Your task to perform on an android device: What's the weather going to be tomorrow? Image 0: 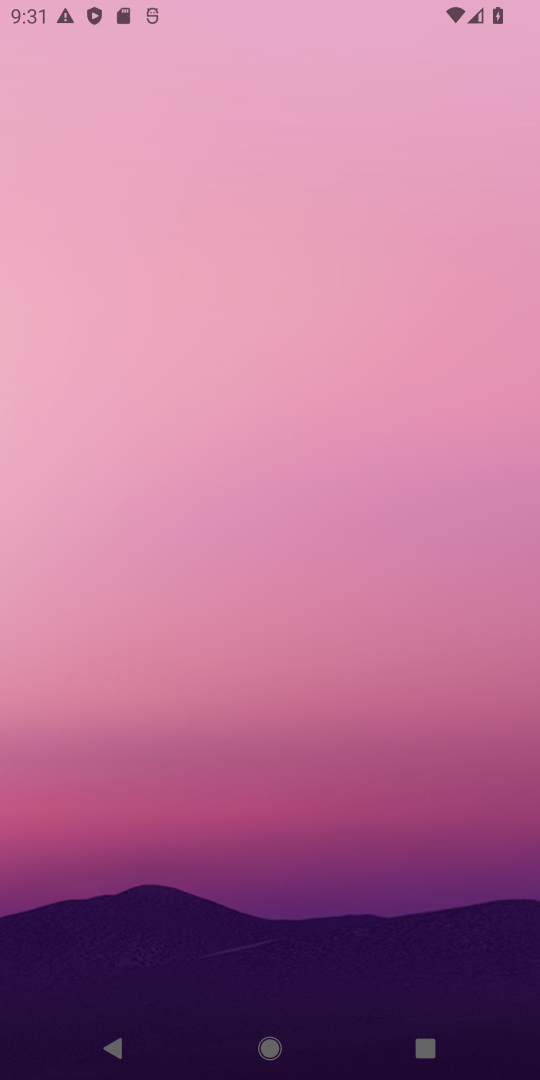
Step 0: press home button
Your task to perform on an android device: What's the weather going to be tomorrow? Image 1: 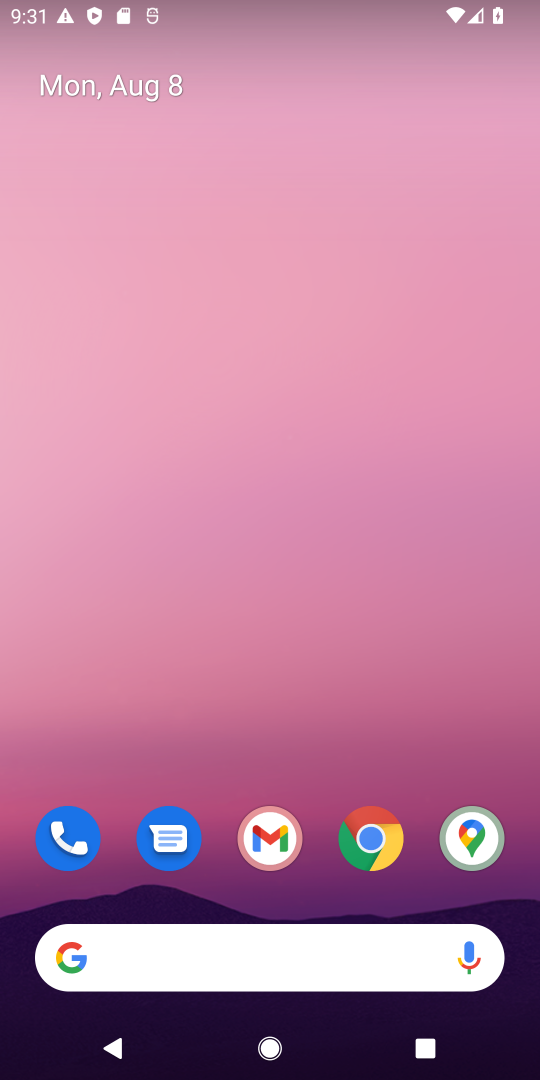
Step 1: click (66, 952)
Your task to perform on an android device: What's the weather going to be tomorrow? Image 2: 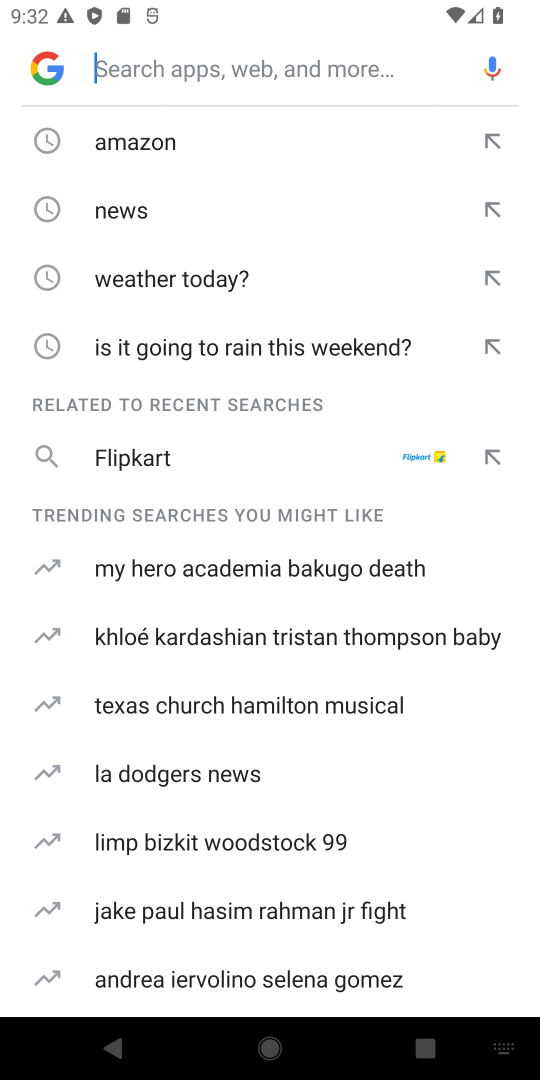
Step 2: press enter
Your task to perform on an android device: What's the weather going to be tomorrow? Image 3: 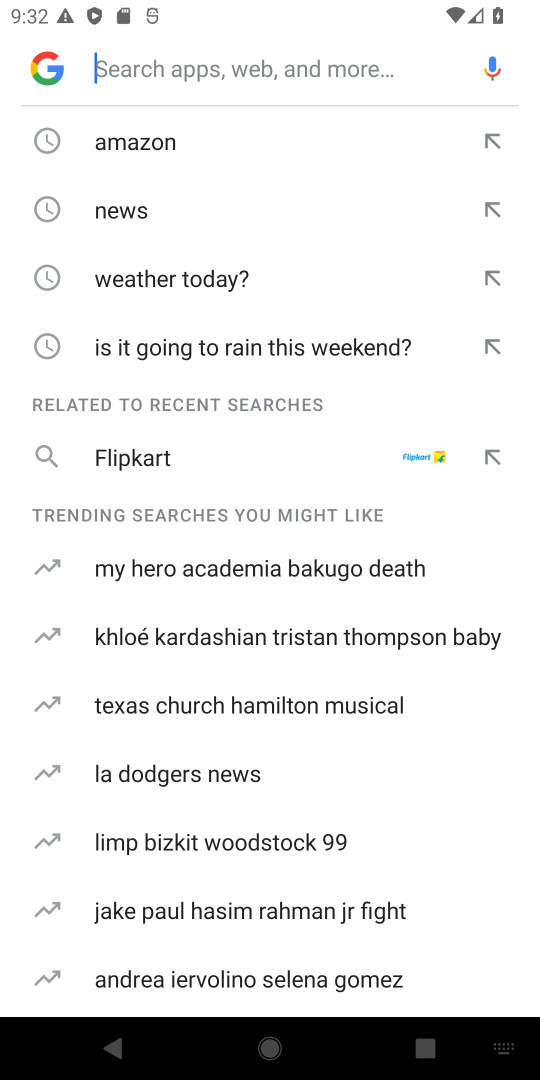
Step 3: type "weather going to be tomorrow?"
Your task to perform on an android device: What's the weather going to be tomorrow? Image 4: 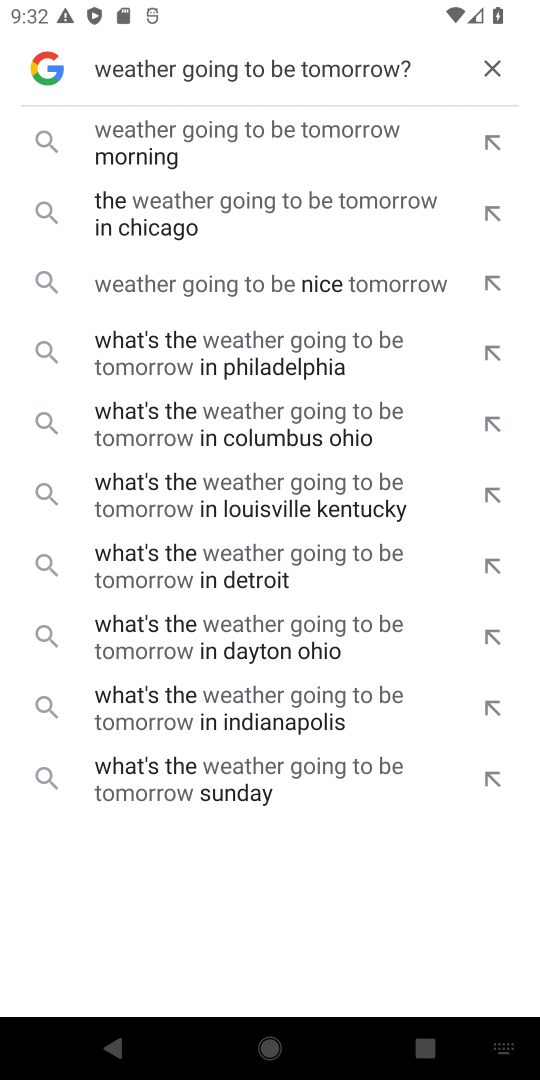
Step 4: press enter
Your task to perform on an android device: What's the weather going to be tomorrow? Image 5: 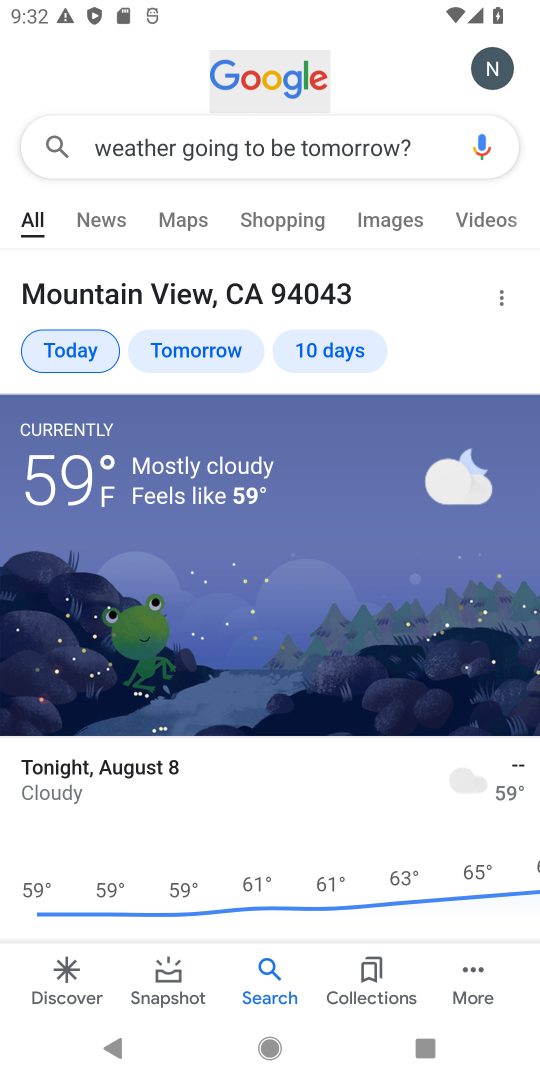
Step 5: task complete